Your task to perform on an android device: Open accessibility settings Image 0: 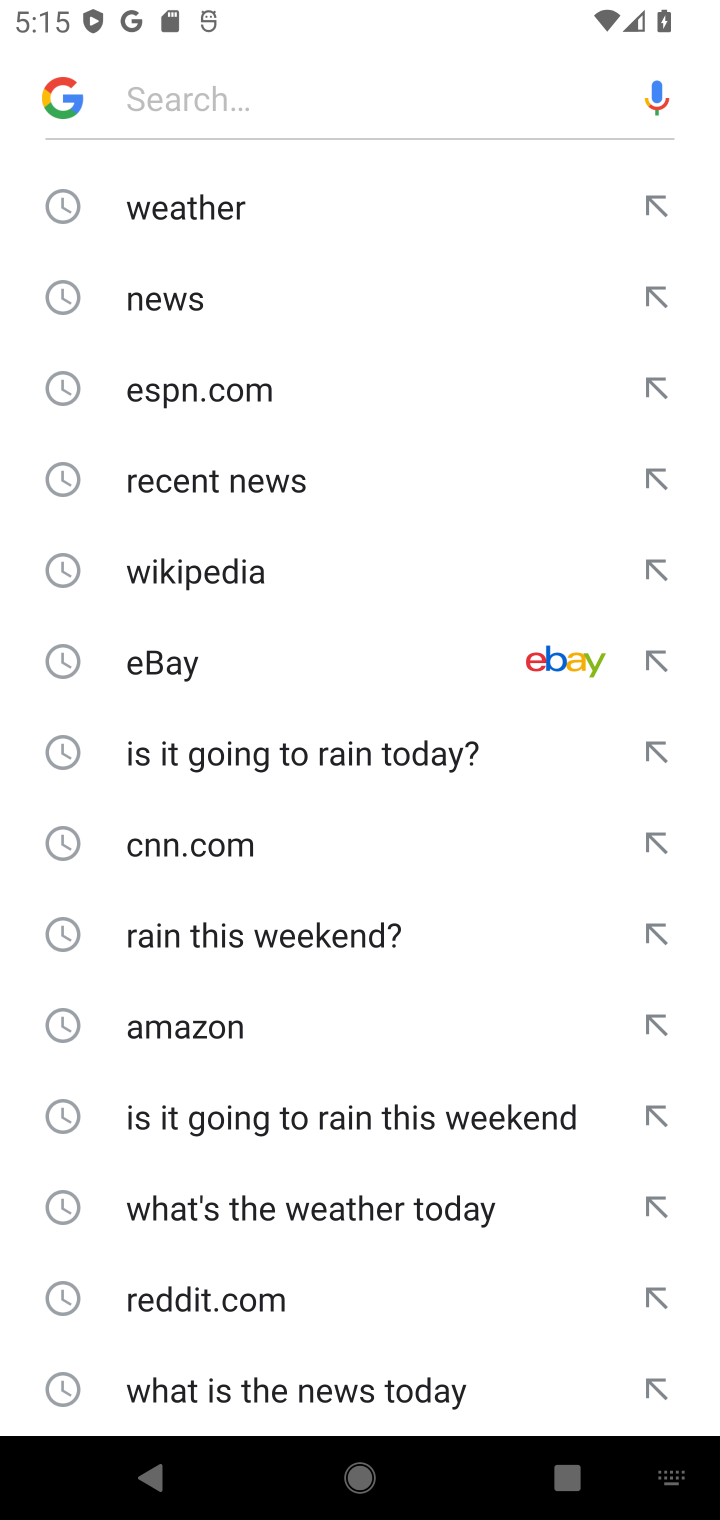
Step 0: press home button
Your task to perform on an android device: Open accessibility settings Image 1: 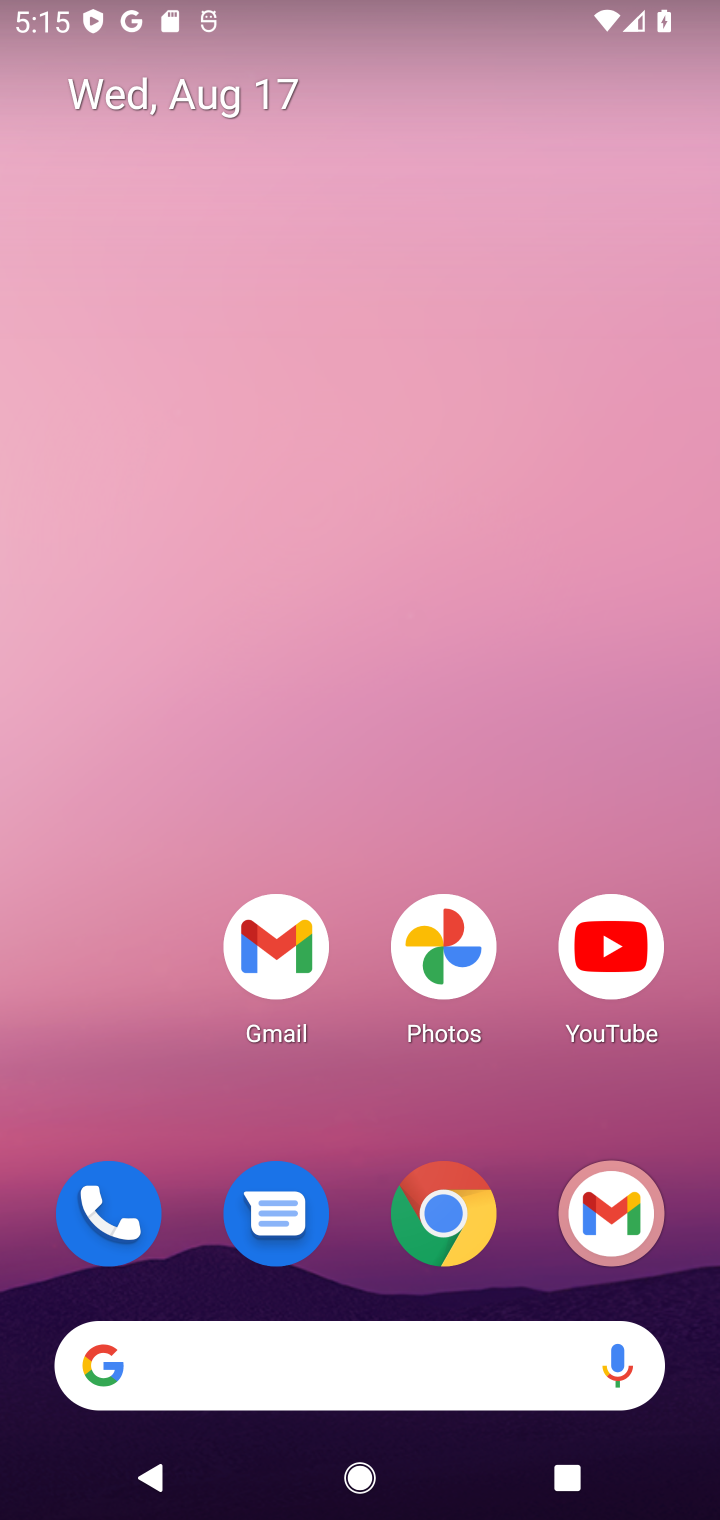
Step 1: drag from (391, 1133) to (302, 255)
Your task to perform on an android device: Open accessibility settings Image 2: 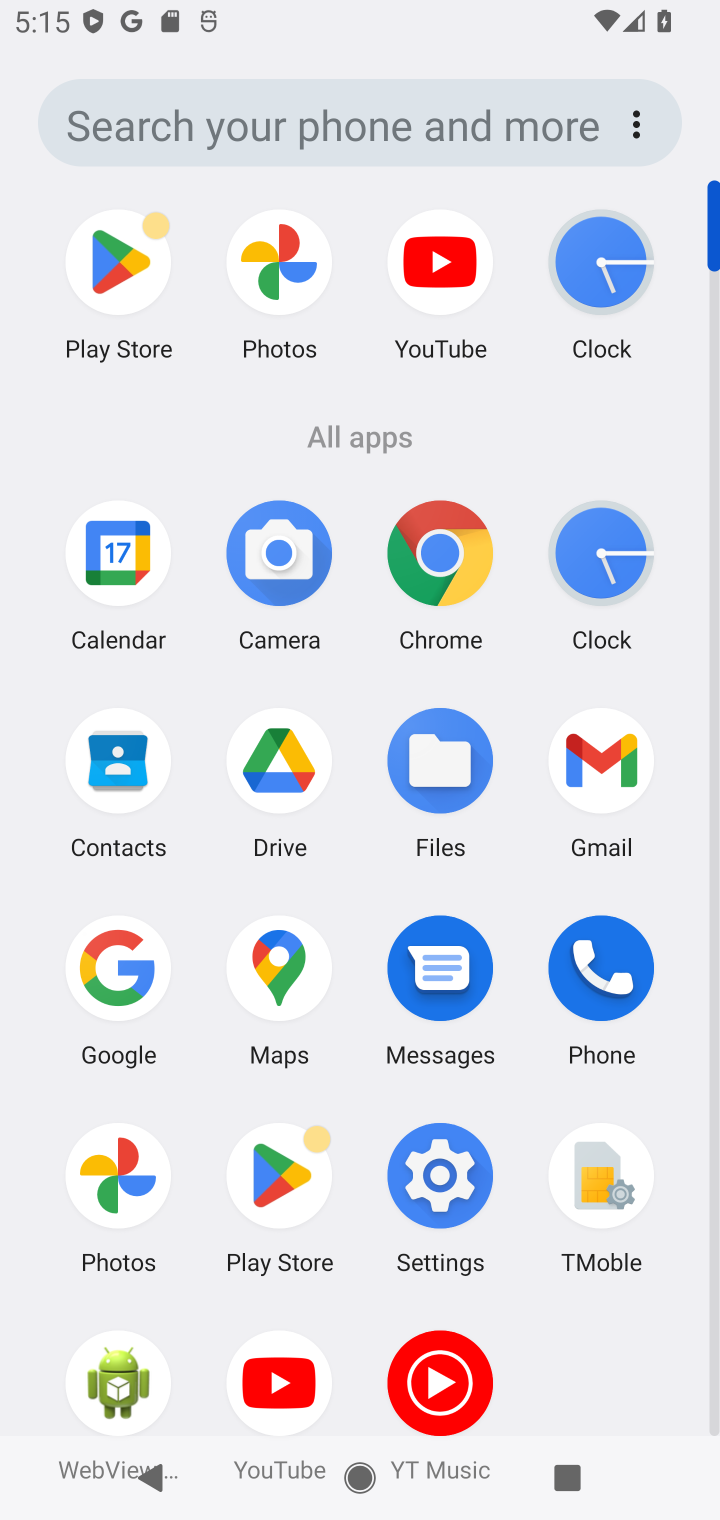
Step 2: click (425, 1209)
Your task to perform on an android device: Open accessibility settings Image 3: 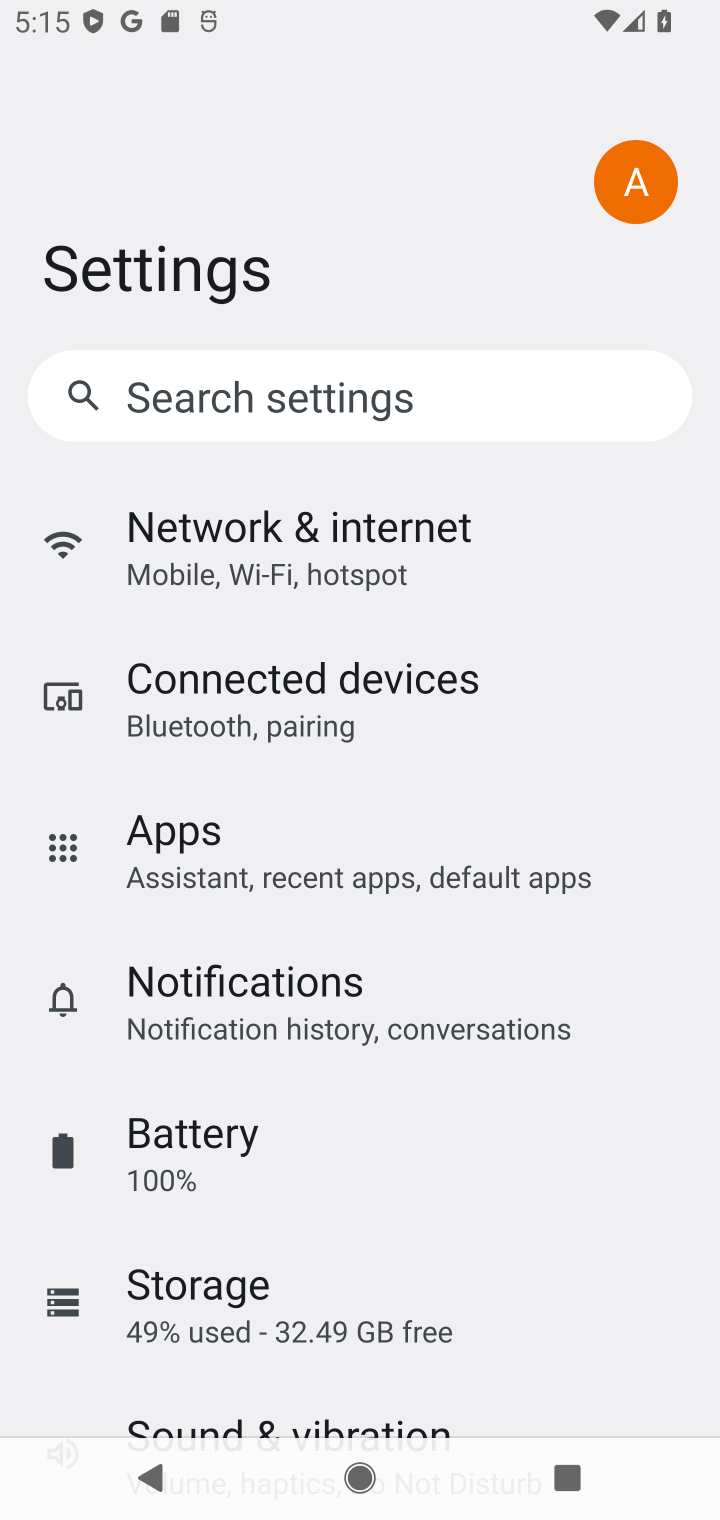
Step 3: drag from (445, 1257) to (409, 557)
Your task to perform on an android device: Open accessibility settings Image 4: 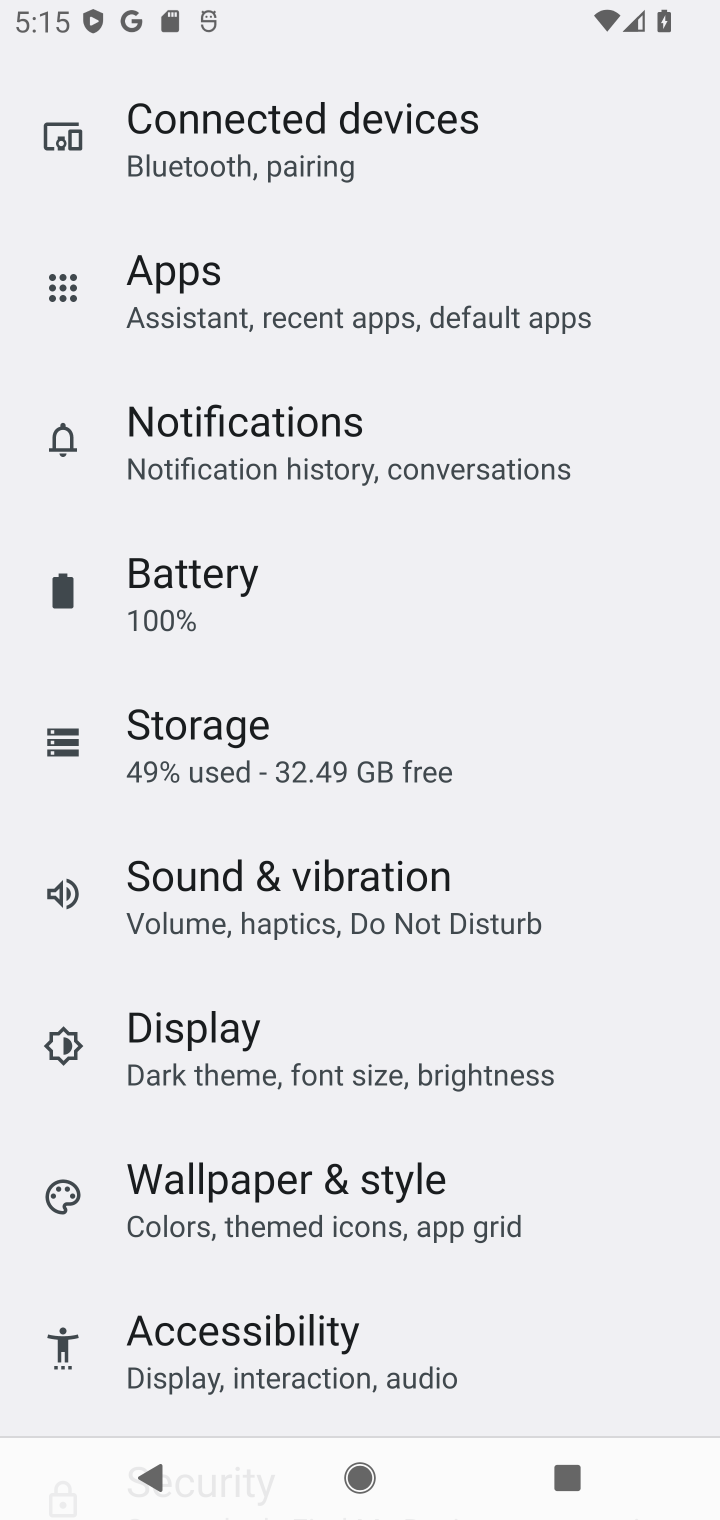
Step 4: click (341, 1332)
Your task to perform on an android device: Open accessibility settings Image 5: 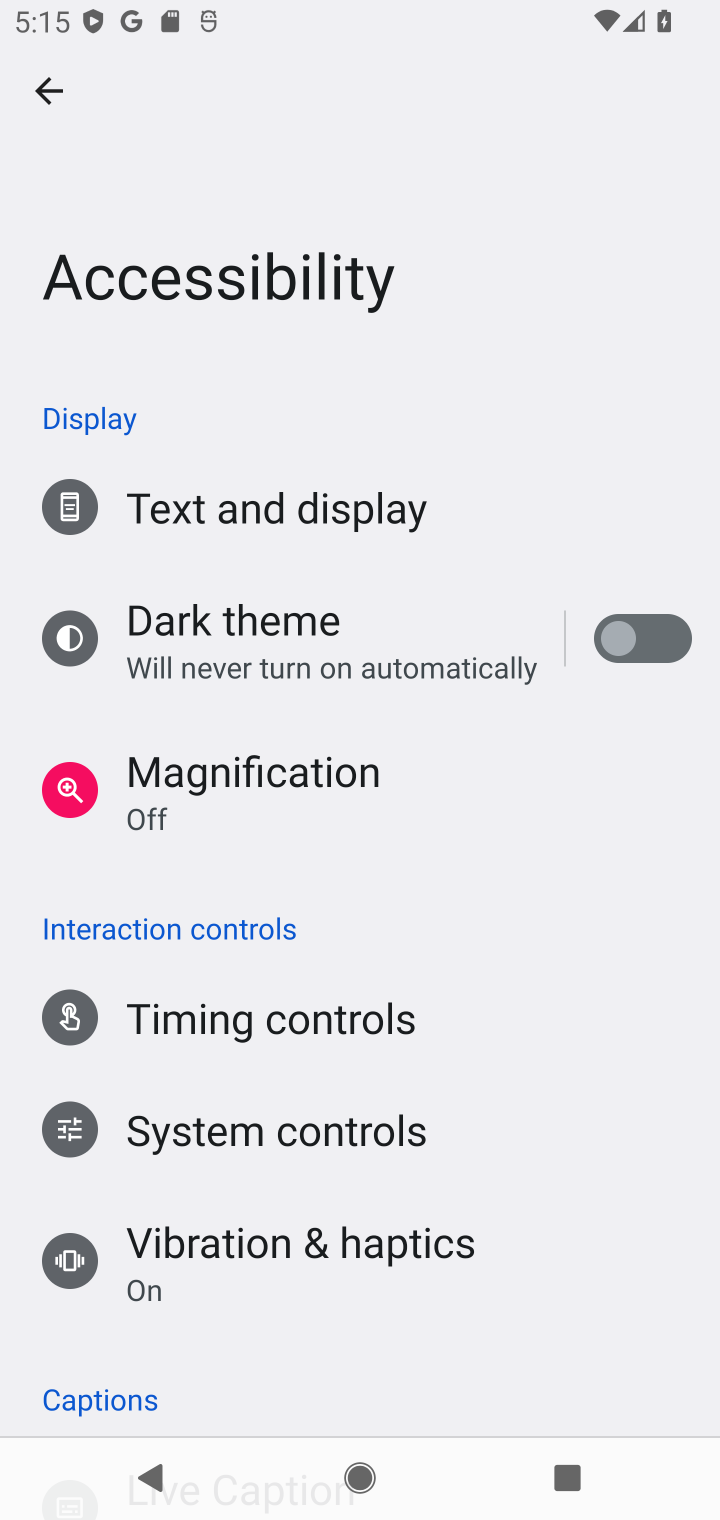
Step 5: task complete